Your task to perform on an android device: Go to wifi settings Image 0: 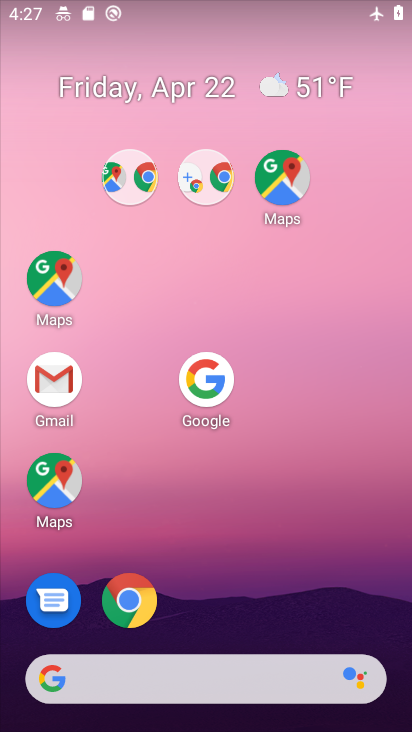
Step 0: drag from (271, 609) to (2, 117)
Your task to perform on an android device: Go to wifi settings Image 1: 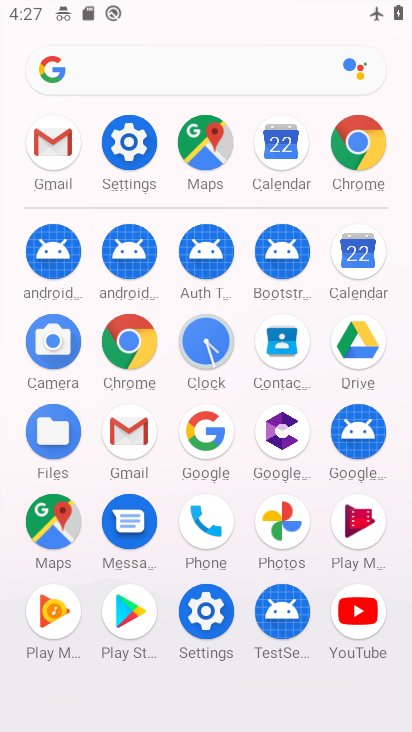
Step 1: click (129, 141)
Your task to perform on an android device: Go to wifi settings Image 2: 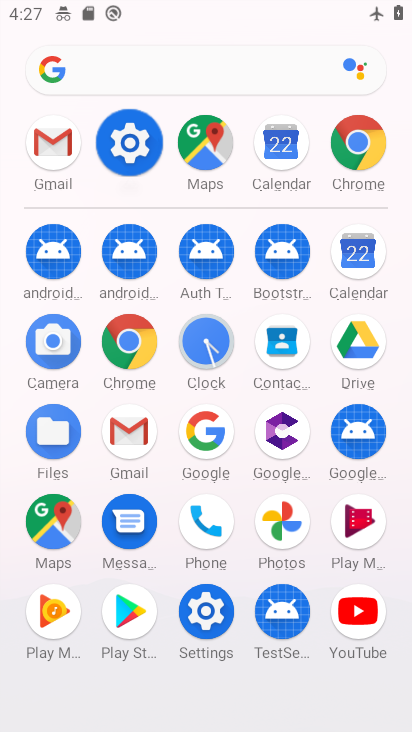
Step 2: click (131, 154)
Your task to perform on an android device: Go to wifi settings Image 3: 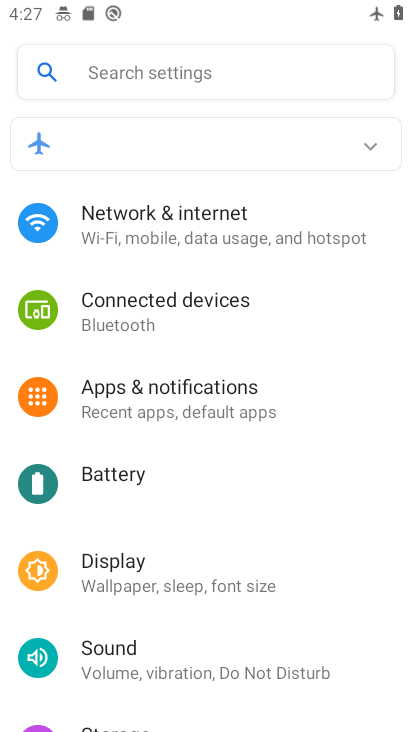
Step 3: click (138, 153)
Your task to perform on an android device: Go to wifi settings Image 4: 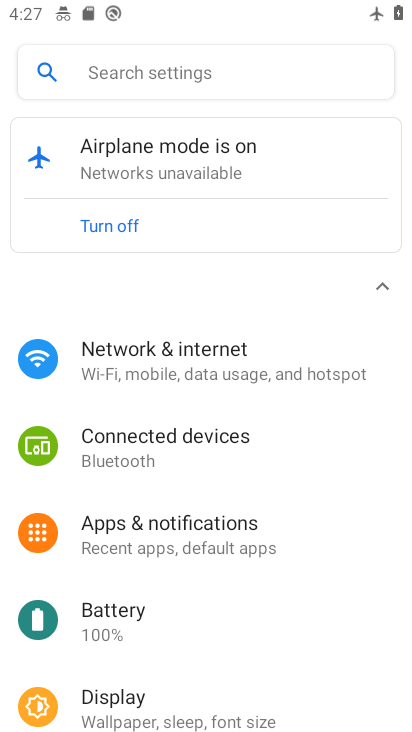
Step 4: click (157, 360)
Your task to perform on an android device: Go to wifi settings Image 5: 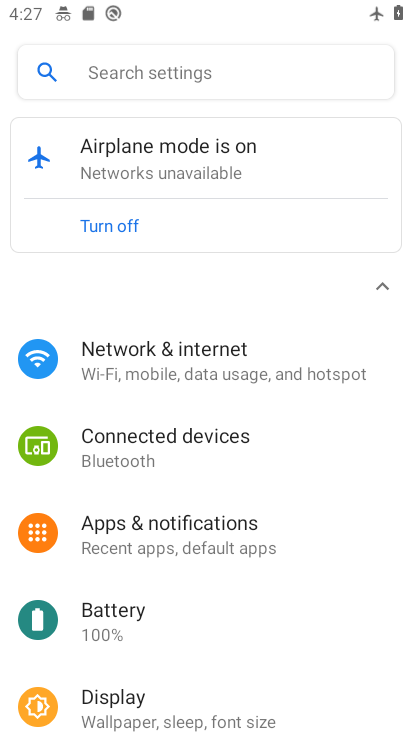
Step 5: click (163, 362)
Your task to perform on an android device: Go to wifi settings Image 6: 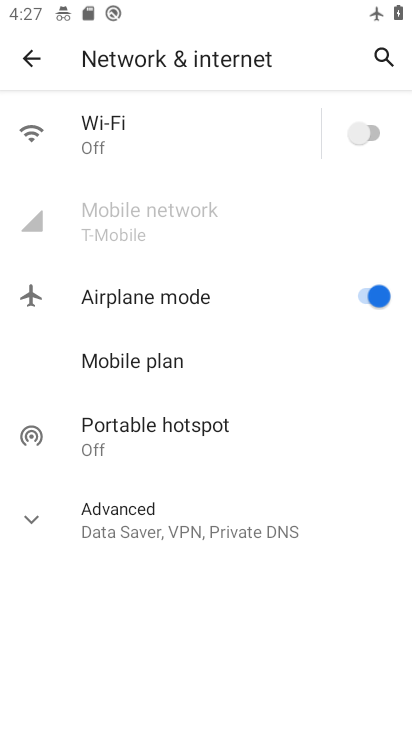
Step 6: click (361, 139)
Your task to perform on an android device: Go to wifi settings Image 7: 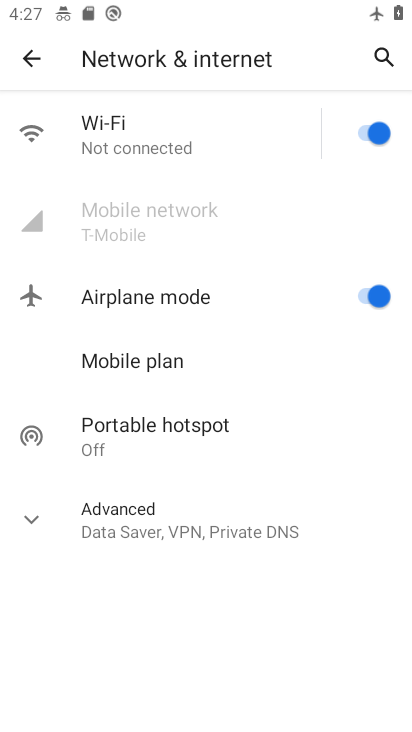
Step 7: click (373, 122)
Your task to perform on an android device: Go to wifi settings Image 8: 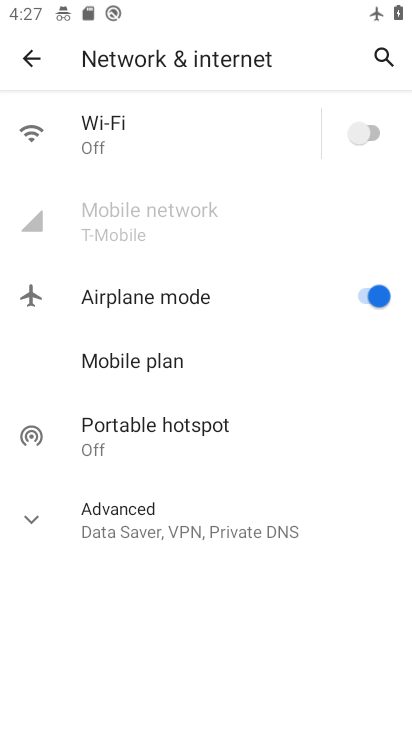
Step 8: task complete